Your task to perform on an android device: Go to Google maps Image 0: 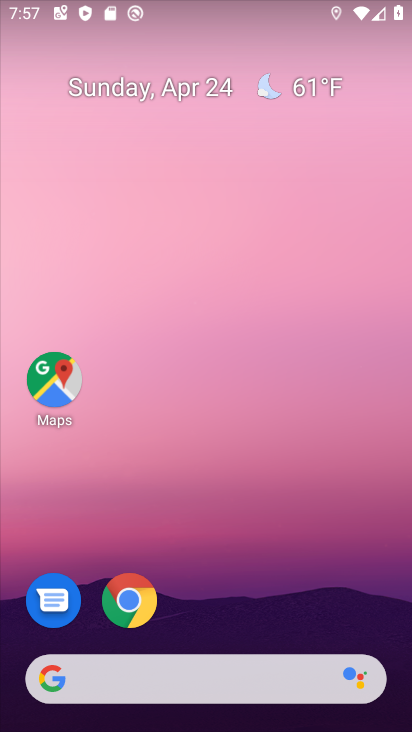
Step 0: drag from (225, 686) to (216, 257)
Your task to perform on an android device: Go to Google maps Image 1: 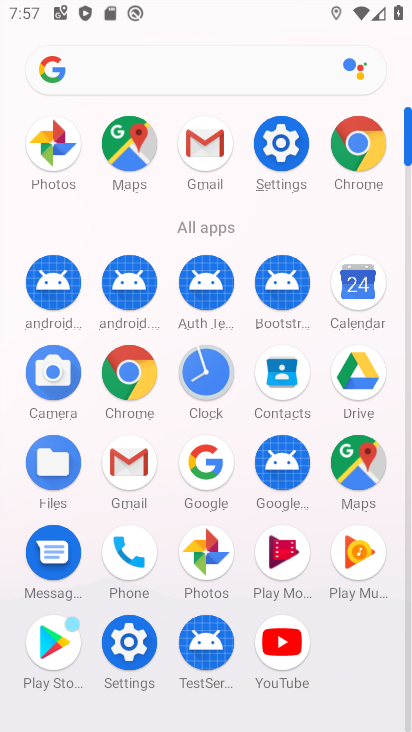
Step 1: click (130, 138)
Your task to perform on an android device: Go to Google maps Image 2: 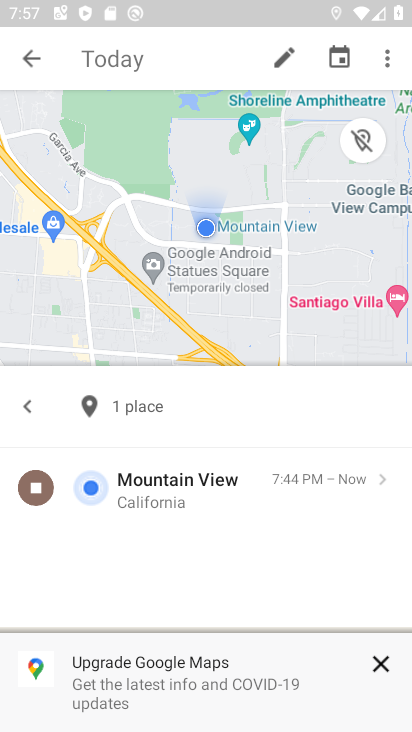
Step 2: click (28, 54)
Your task to perform on an android device: Go to Google maps Image 3: 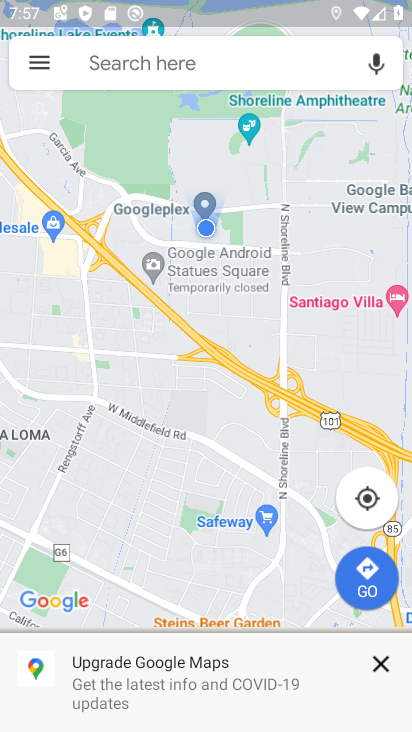
Step 3: task complete